Your task to perform on an android device: turn off translation in the chrome app Image 0: 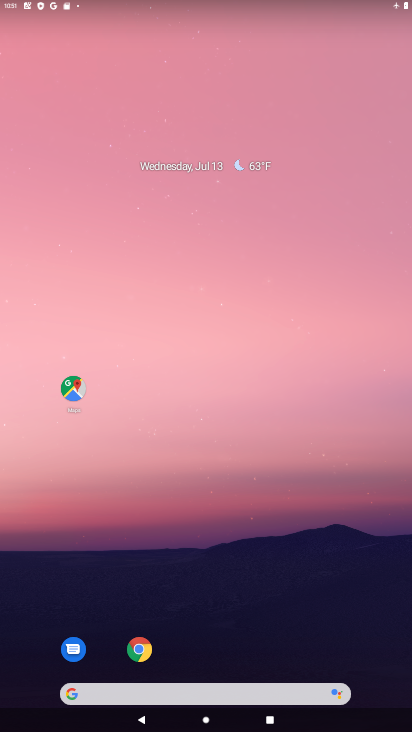
Step 0: drag from (292, 638) to (281, 216)
Your task to perform on an android device: turn off translation in the chrome app Image 1: 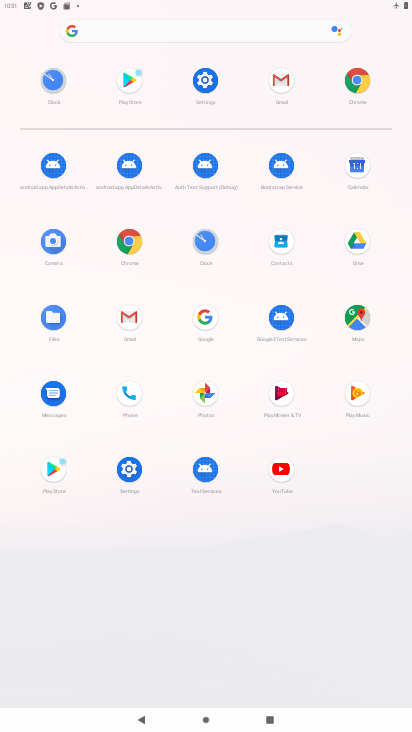
Step 1: click (352, 84)
Your task to perform on an android device: turn off translation in the chrome app Image 2: 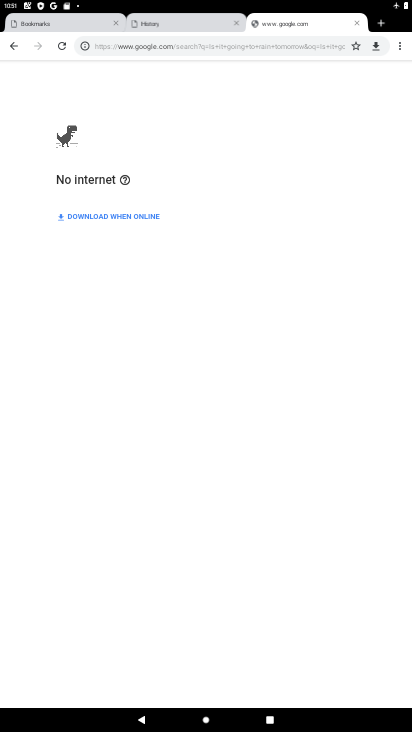
Step 2: click (397, 39)
Your task to perform on an android device: turn off translation in the chrome app Image 3: 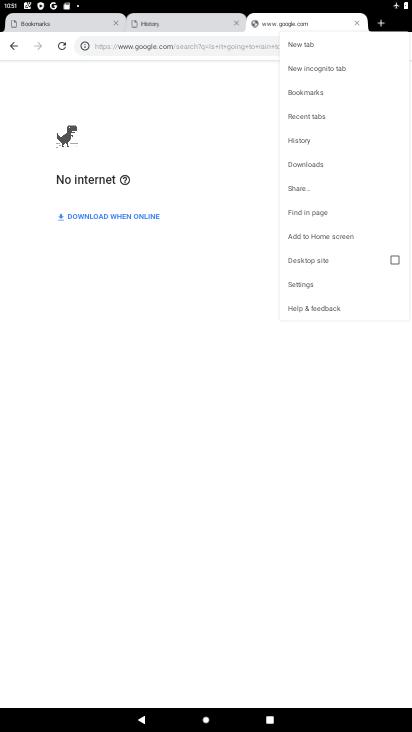
Step 3: click (327, 280)
Your task to perform on an android device: turn off translation in the chrome app Image 4: 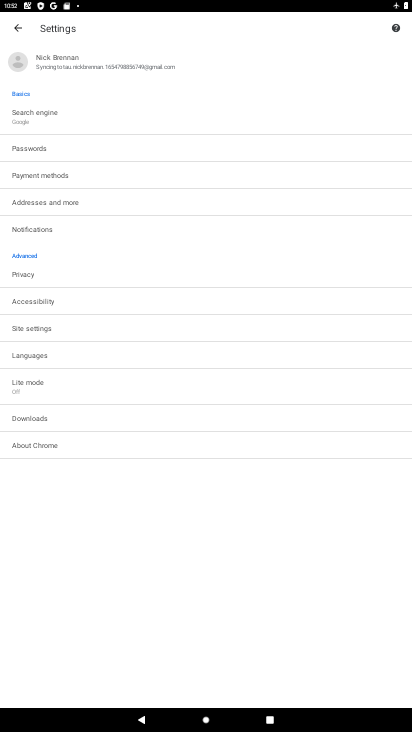
Step 4: click (63, 360)
Your task to perform on an android device: turn off translation in the chrome app Image 5: 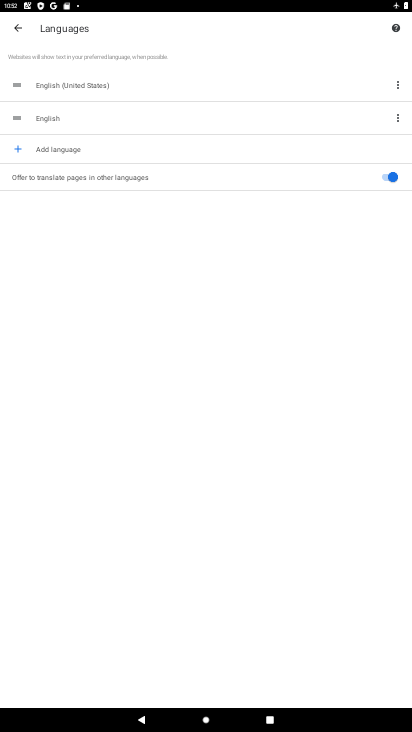
Step 5: click (388, 172)
Your task to perform on an android device: turn off translation in the chrome app Image 6: 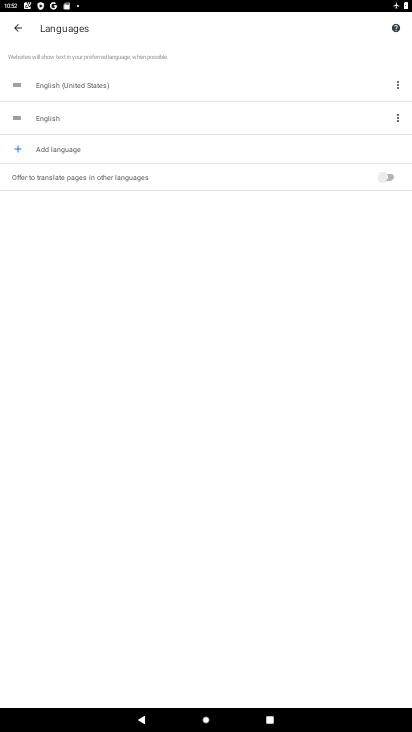
Step 6: task complete